Your task to perform on an android device: open a bookmark in the chrome app Image 0: 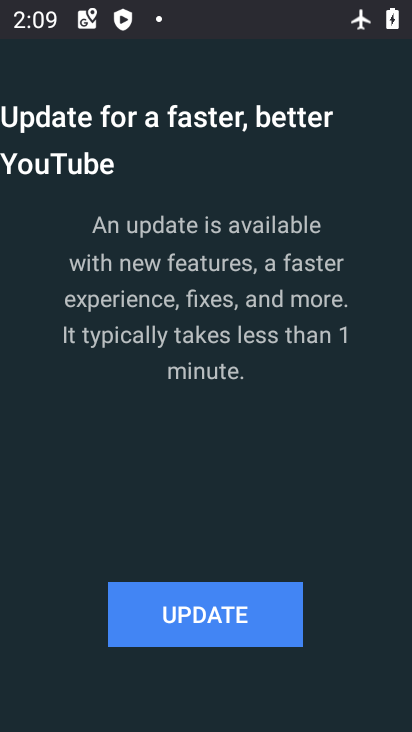
Step 0: press home button
Your task to perform on an android device: open a bookmark in the chrome app Image 1: 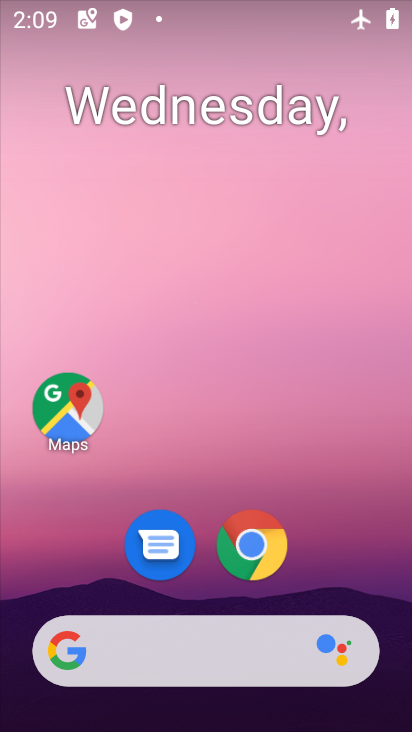
Step 1: click (254, 544)
Your task to perform on an android device: open a bookmark in the chrome app Image 2: 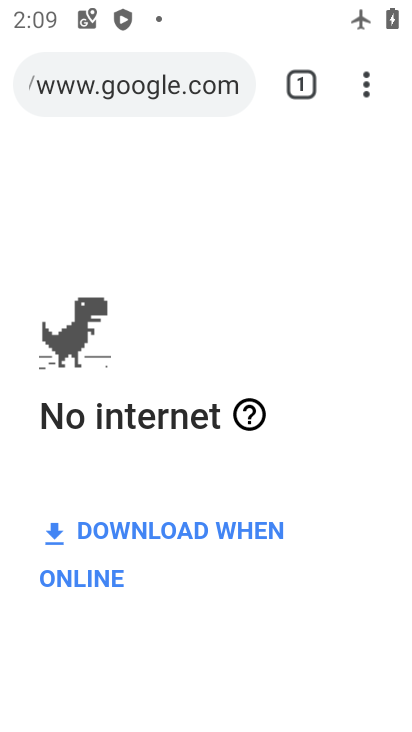
Step 2: drag from (369, 78) to (158, 341)
Your task to perform on an android device: open a bookmark in the chrome app Image 3: 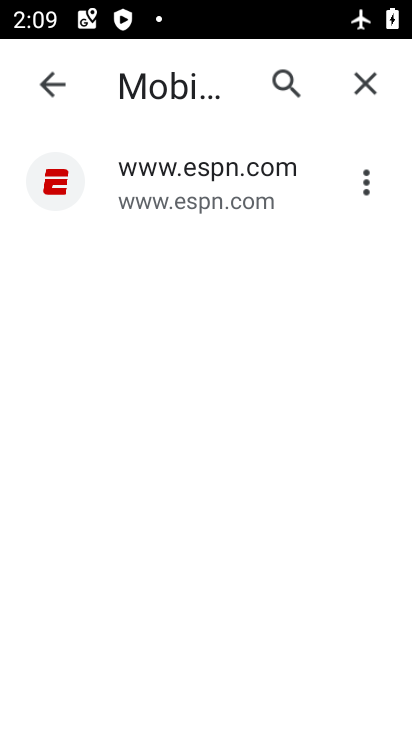
Step 3: click (179, 174)
Your task to perform on an android device: open a bookmark in the chrome app Image 4: 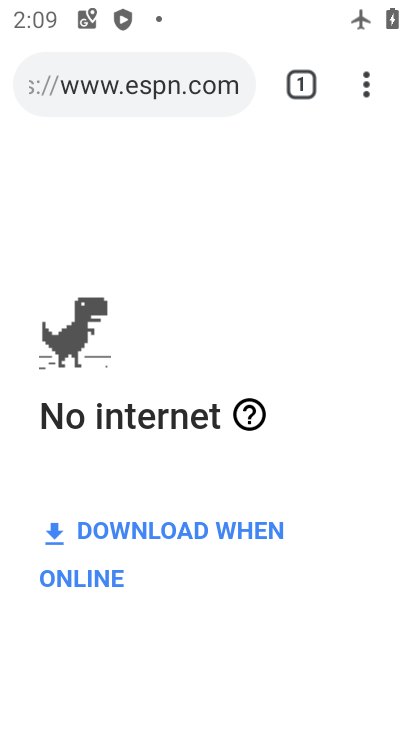
Step 4: task complete